Your task to perform on an android device: Go to network settings Image 0: 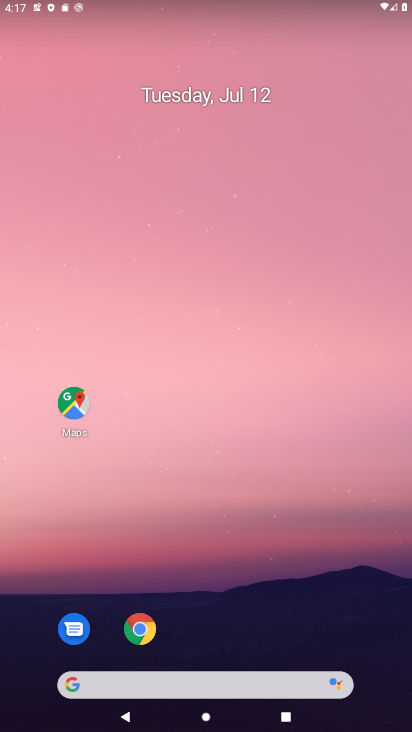
Step 0: drag from (237, 636) to (258, 30)
Your task to perform on an android device: Go to network settings Image 1: 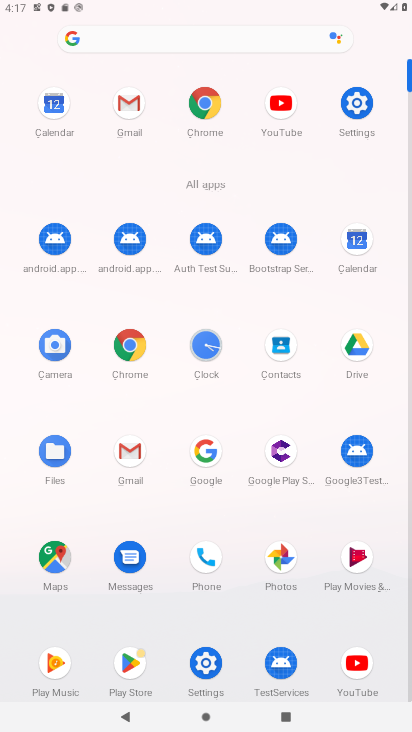
Step 1: click (359, 99)
Your task to perform on an android device: Go to network settings Image 2: 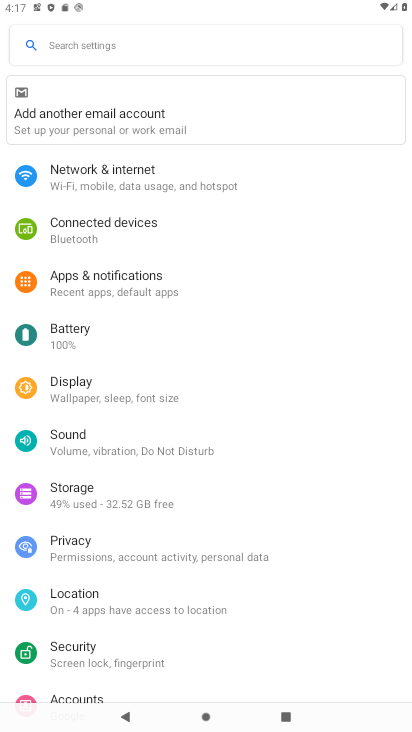
Step 2: click (100, 180)
Your task to perform on an android device: Go to network settings Image 3: 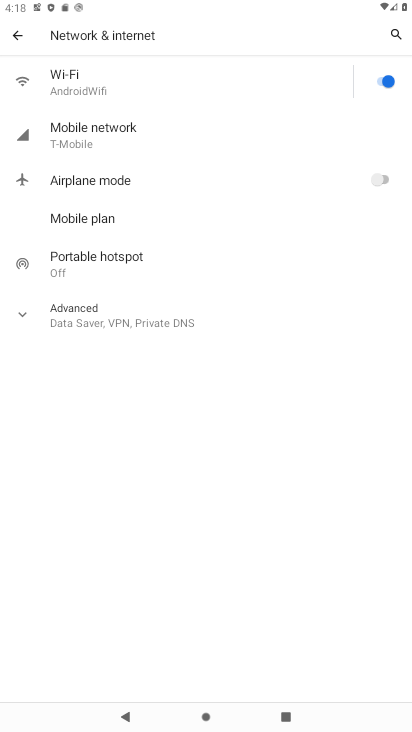
Step 3: task complete